Your task to perform on an android device: snooze an email in the gmail app Image 0: 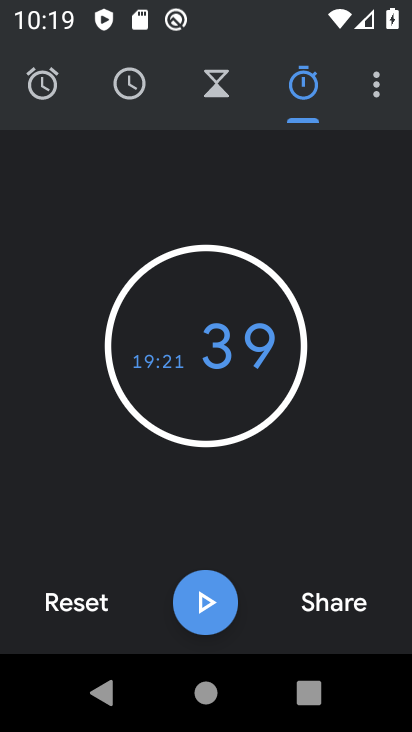
Step 0: press home button
Your task to perform on an android device: snooze an email in the gmail app Image 1: 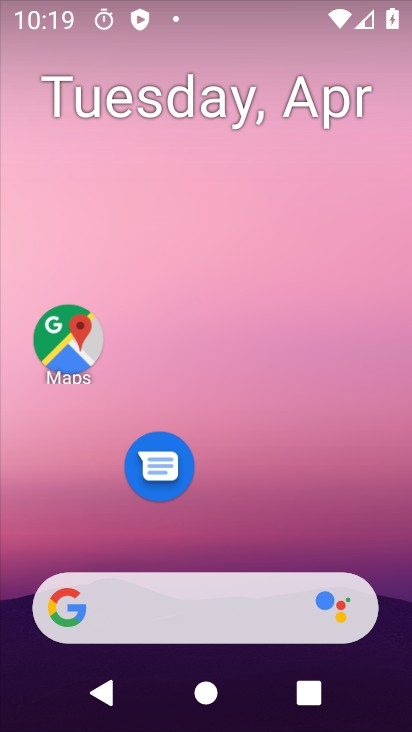
Step 1: drag from (310, 540) to (270, 110)
Your task to perform on an android device: snooze an email in the gmail app Image 2: 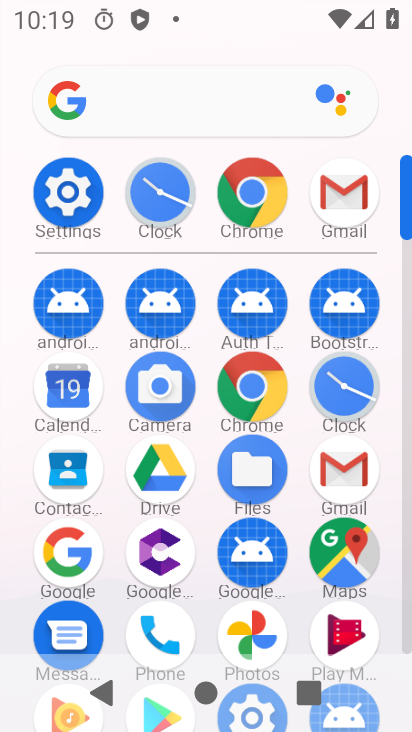
Step 2: click (335, 199)
Your task to perform on an android device: snooze an email in the gmail app Image 3: 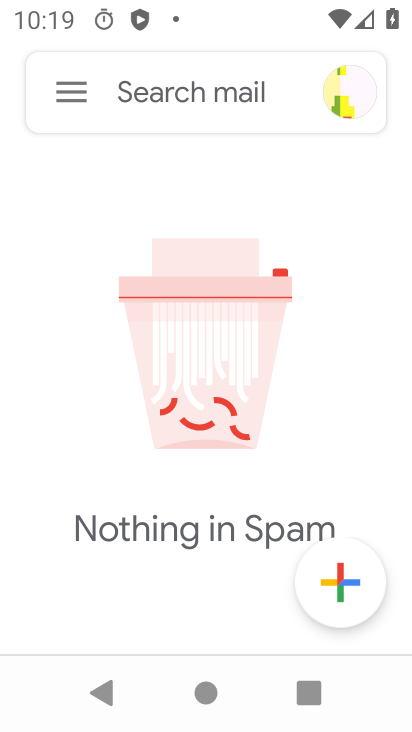
Step 3: click (76, 91)
Your task to perform on an android device: snooze an email in the gmail app Image 4: 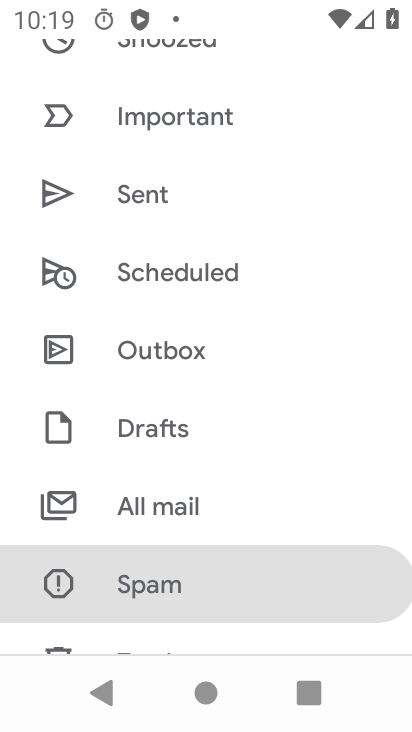
Step 4: click (215, 59)
Your task to perform on an android device: snooze an email in the gmail app Image 5: 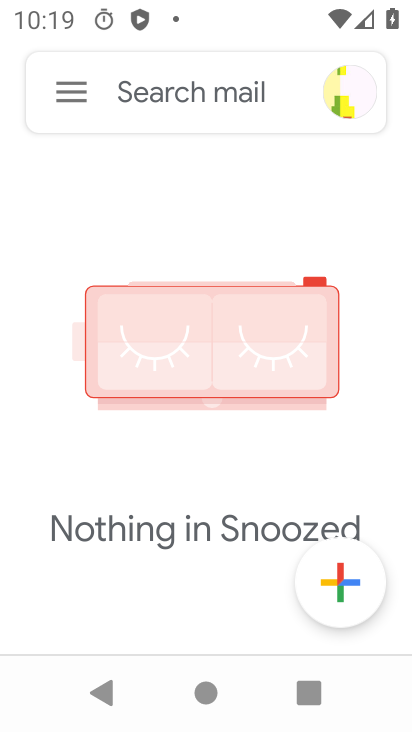
Step 5: task complete